Your task to perform on an android device: Empty the shopping cart on walmart.com. Image 0: 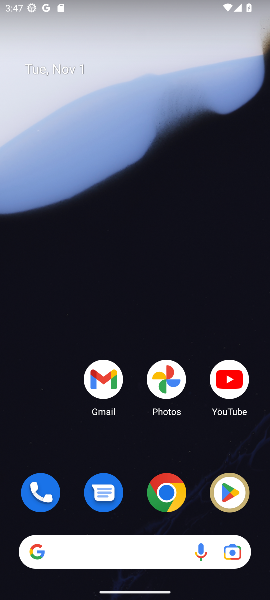
Step 0: click (165, 498)
Your task to perform on an android device: Empty the shopping cart on walmart.com. Image 1: 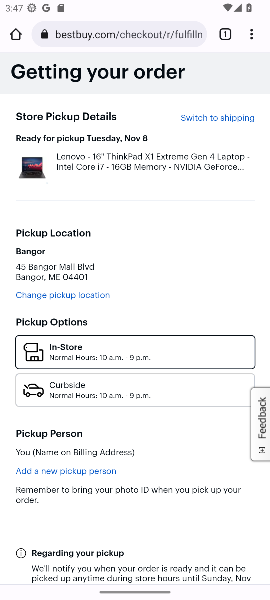
Step 1: click (140, 28)
Your task to perform on an android device: Empty the shopping cart on walmart.com. Image 2: 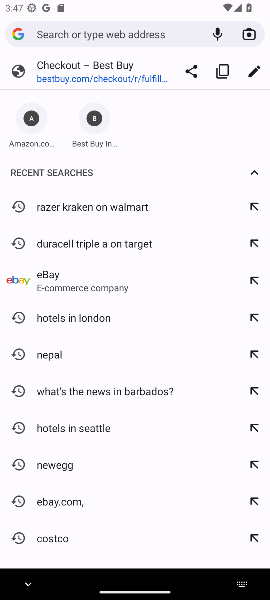
Step 2: type "walmart.com"
Your task to perform on an android device: Empty the shopping cart on walmart.com. Image 3: 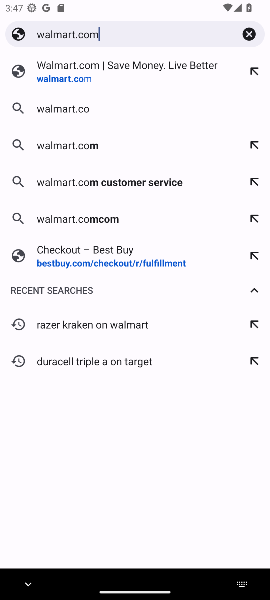
Step 3: type ""
Your task to perform on an android device: Empty the shopping cart on walmart.com. Image 4: 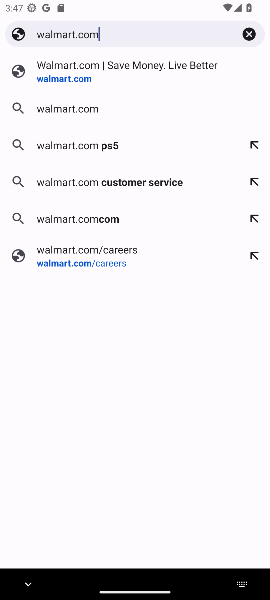
Step 4: press enter
Your task to perform on an android device: Empty the shopping cart on walmart.com. Image 5: 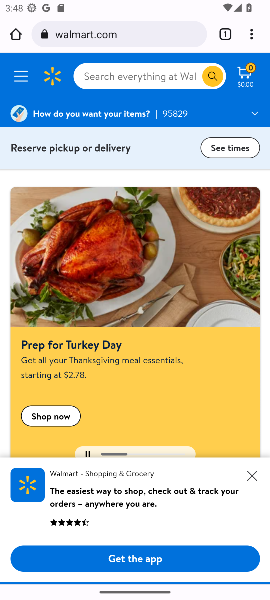
Step 5: click (239, 72)
Your task to perform on an android device: Empty the shopping cart on walmart.com. Image 6: 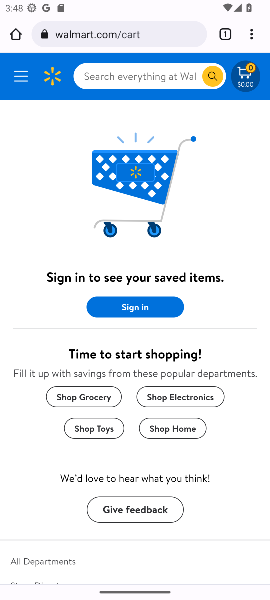
Step 6: press back button
Your task to perform on an android device: Empty the shopping cart on walmart.com. Image 7: 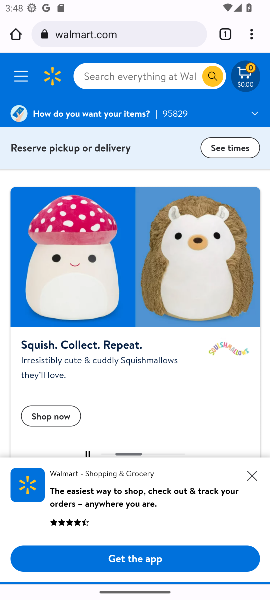
Step 7: click (257, 473)
Your task to perform on an android device: Empty the shopping cart on walmart.com. Image 8: 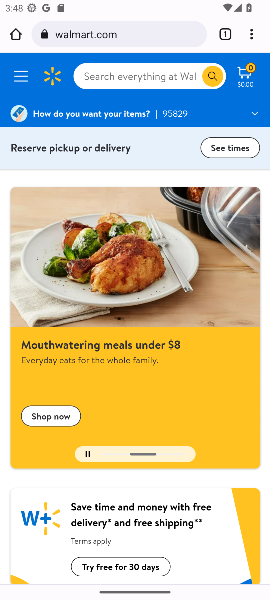
Step 8: drag from (164, 536) to (212, 258)
Your task to perform on an android device: Empty the shopping cart on walmart.com. Image 9: 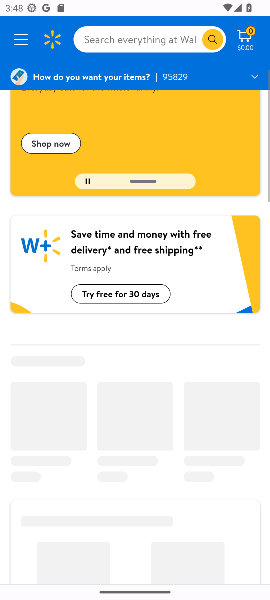
Step 9: drag from (193, 312) to (208, 218)
Your task to perform on an android device: Empty the shopping cart on walmart.com. Image 10: 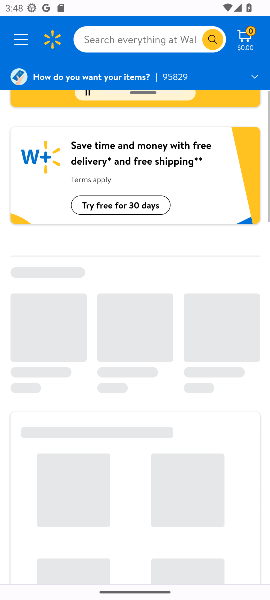
Step 10: drag from (186, 299) to (225, 181)
Your task to perform on an android device: Empty the shopping cart on walmart.com. Image 11: 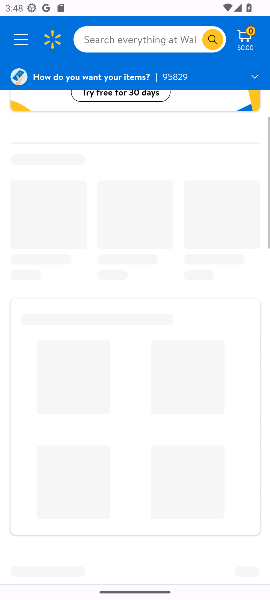
Step 11: drag from (224, 278) to (229, 224)
Your task to perform on an android device: Empty the shopping cart on walmart.com. Image 12: 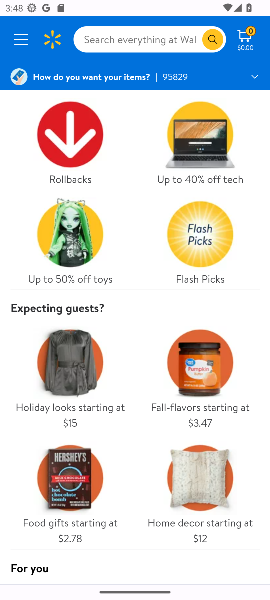
Step 12: drag from (74, 411) to (169, 181)
Your task to perform on an android device: Empty the shopping cart on walmart.com. Image 13: 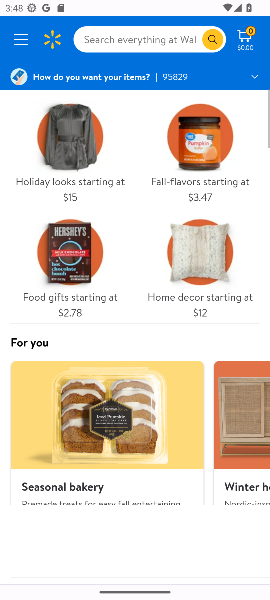
Step 13: drag from (178, 269) to (200, 188)
Your task to perform on an android device: Empty the shopping cart on walmart.com. Image 14: 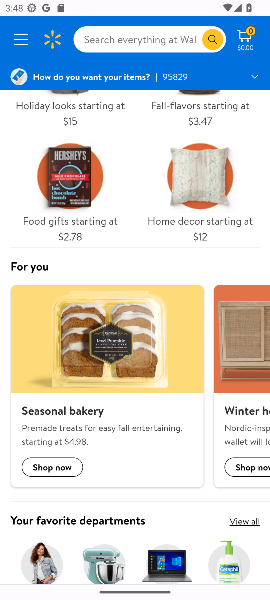
Step 14: drag from (123, 186) to (181, 143)
Your task to perform on an android device: Empty the shopping cart on walmart.com. Image 15: 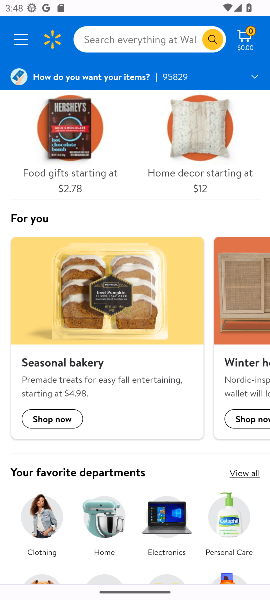
Step 15: drag from (158, 484) to (176, 239)
Your task to perform on an android device: Empty the shopping cart on walmart.com. Image 16: 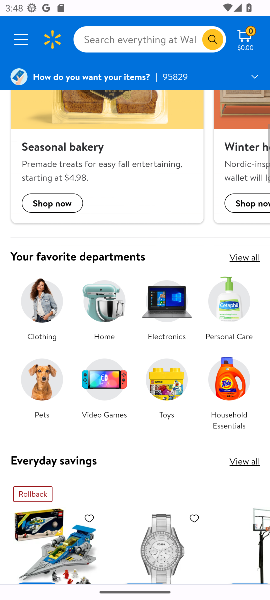
Step 16: drag from (162, 418) to (197, 291)
Your task to perform on an android device: Empty the shopping cart on walmart.com. Image 17: 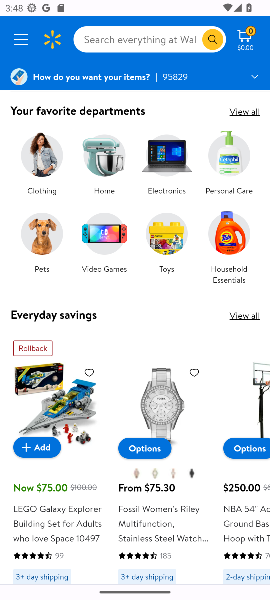
Step 17: drag from (111, 401) to (137, 167)
Your task to perform on an android device: Empty the shopping cart on walmart.com. Image 18: 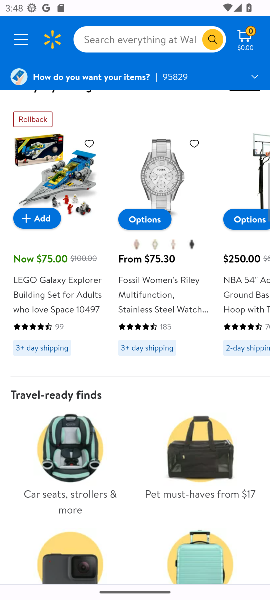
Step 18: drag from (140, 418) to (140, 223)
Your task to perform on an android device: Empty the shopping cart on walmart.com. Image 19: 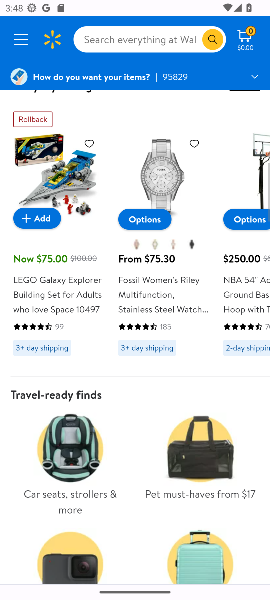
Step 19: drag from (134, 415) to (170, 221)
Your task to perform on an android device: Empty the shopping cart on walmart.com. Image 20: 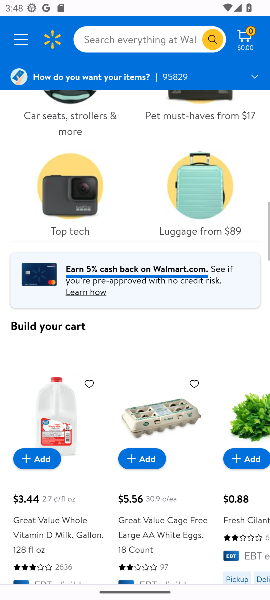
Step 20: drag from (150, 384) to (167, 237)
Your task to perform on an android device: Empty the shopping cart on walmart.com. Image 21: 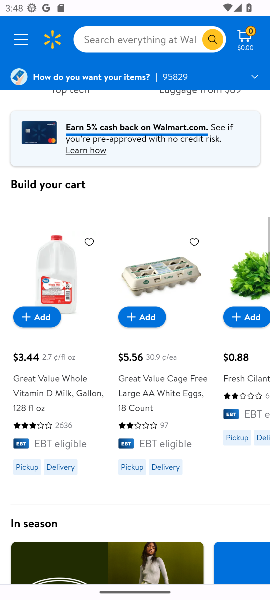
Step 21: drag from (162, 418) to (185, 236)
Your task to perform on an android device: Empty the shopping cart on walmart.com. Image 22: 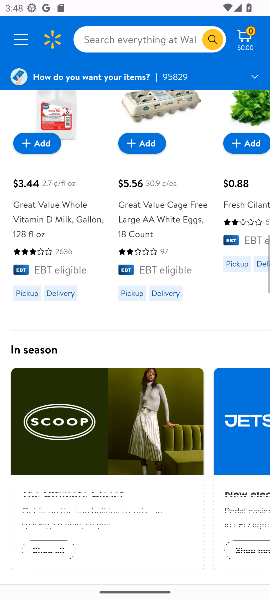
Step 22: drag from (173, 370) to (179, 224)
Your task to perform on an android device: Empty the shopping cart on walmart.com. Image 23: 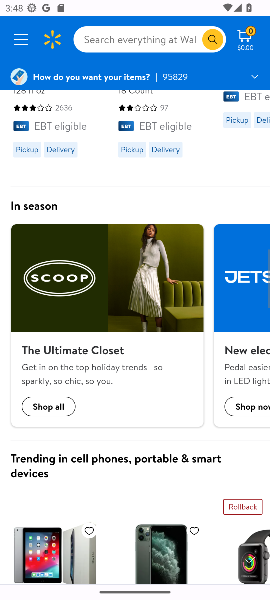
Step 23: drag from (159, 388) to (173, 197)
Your task to perform on an android device: Empty the shopping cart on walmart.com. Image 24: 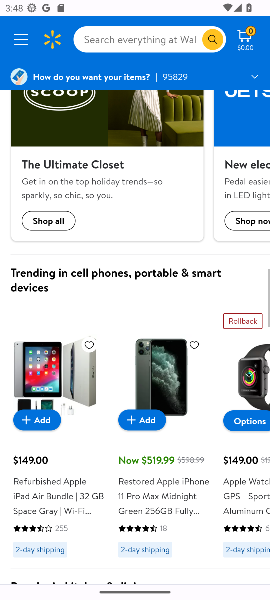
Step 24: drag from (168, 385) to (190, 182)
Your task to perform on an android device: Empty the shopping cart on walmart.com. Image 25: 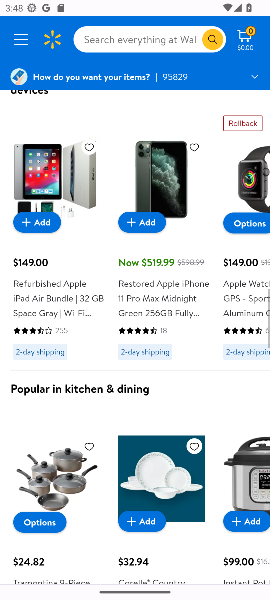
Step 25: drag from (165, 320) to (185, 172)
Your task to perform on an android device: Empty the shopping cart on walmart.com. Image 26: 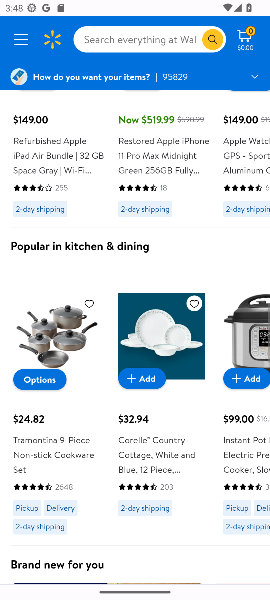
Step 26: drag from (161, 413) to (178, 172)
Your task to perform on an android device: Empty the shopping cart on walmart.com. Image 27: 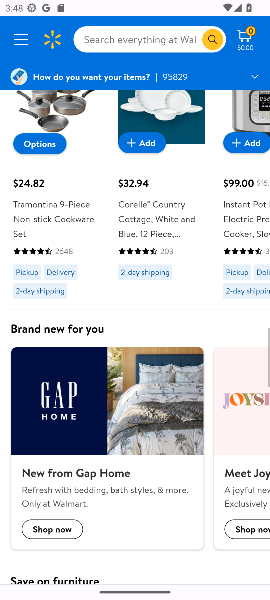
Step 27: drag from (149, 391) to (162, 194)
Your task to perform on an android device: Empty the shopping cart on walmart.com. Image 28: 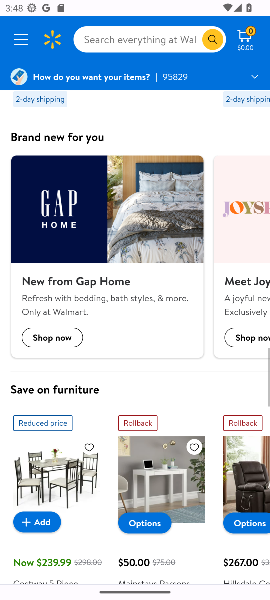
Step 28: drag from (149, 342) to (160, 198)
Your task to perform on an android device: Empty the shopping cart on walmart.com. Image 29: 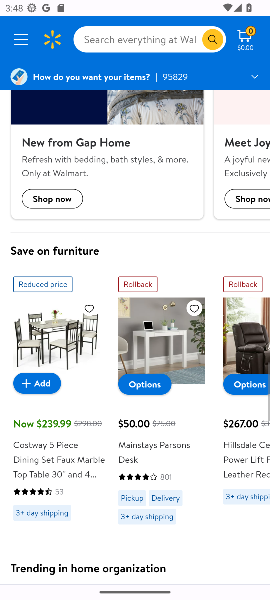
Step 29: drag from (173, 369) to (183, 191)
Your task to perform on an android device: Empty the shopping cart on walmart.com. Image 30: 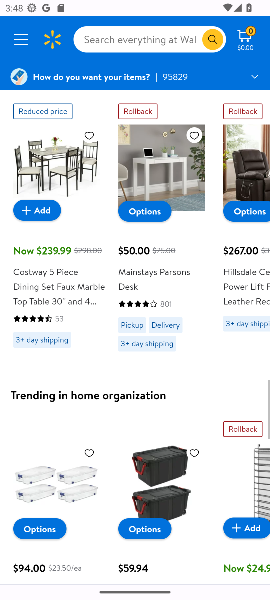
Step 30: drag from (155, 368) to (158, 224)
Your task to perform on an android device: Empty the shopping cart on walmart.com. Image 31: 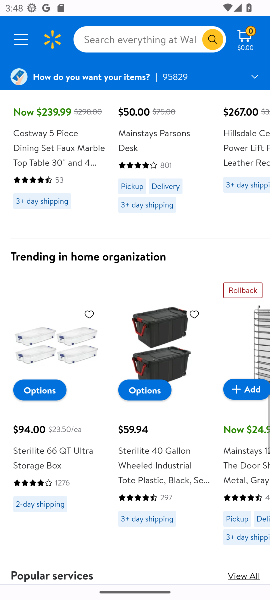
Step 31: drag from (146, 395) to (162, 197)
Your task to perform on an android device: Empty the shopping cart on walmart.com. Image 32: 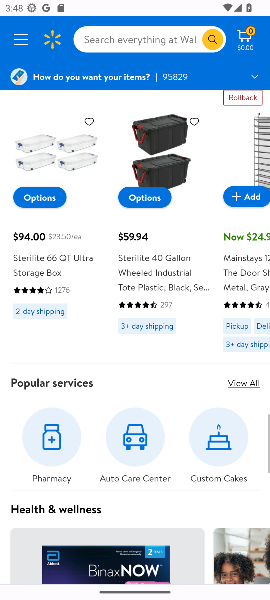
Step 32: drag from (175, 376) to (173, 202)
Your task to perform on an android device: Empty the shopping cart on walmart.com. Image 33: 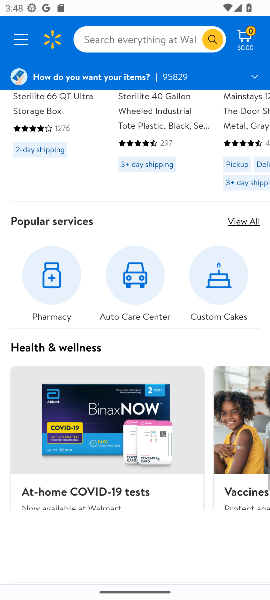
Step 33: drag from (166, 427) to (188, 236)
Your task to perform on an android device: Empty the shopping cart on walmart.com. Image 34: 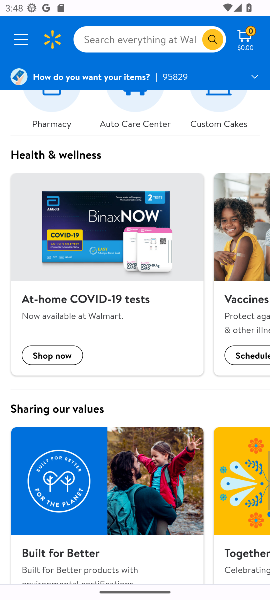
Step 34: drag from (172, 421) to (193, 241)
Your task to perform on an android device: Empty the shopping cart on walmart.com. Image 35: 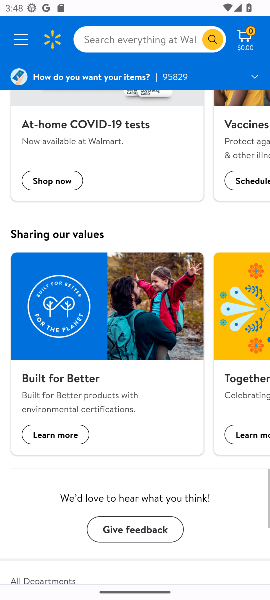
Step 35: drag from (165, 396) to (168, 202)
Your task to perform on an android device: Empty the shopping cart on walmart.com. Image 36: 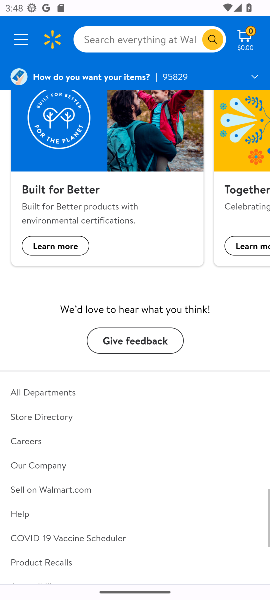
Step 36: drag from (151, 254) to (153, 212)
Your task to perform on an android device: Empty the shopping cart on walmart.com. Image 37: 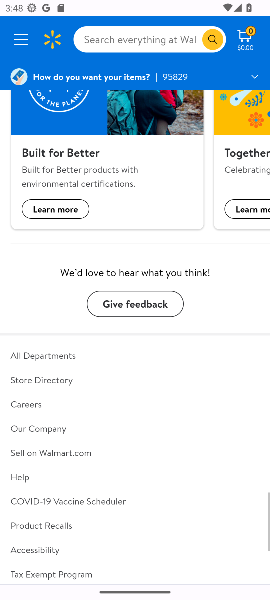
Step 37: click (165, 254)
Your task to perform on an android device: Empty the shopping cart on walmart.com. Image 38: 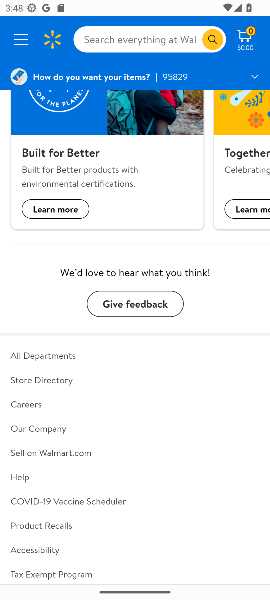
Step 38: press back button
Your task to perform on an android device: Empty the shopping cart on walmart.com. Image 39: 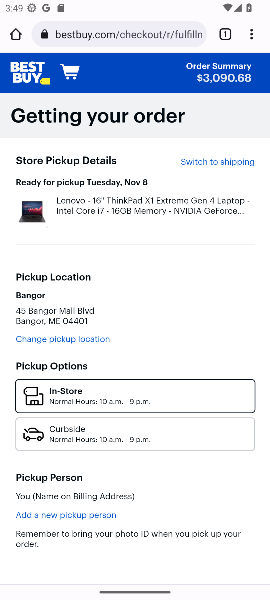
Step 39: drag from (180, 265) to (194, 166)
Your task to perform on an android device: Empty the shopping cart on walmart.com. Image 40: 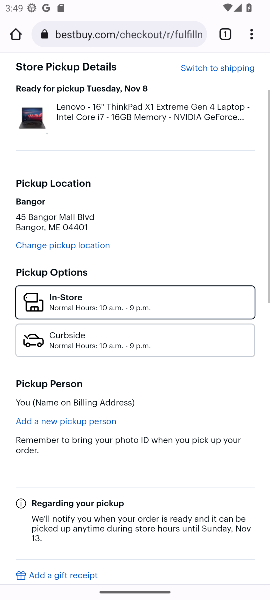
Step 40: drag from (172, 332) to (175, 551)
Your task to perform on an android device: Empty the shopping cart on walmart.com. Image 41: 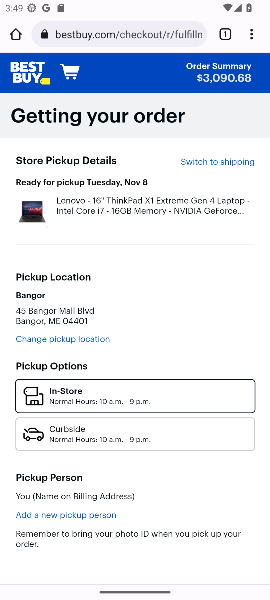
Step 41: click (61, 75)
Your task to perform on an android device: Empty the shopping cart on walmart.com. Image 42: 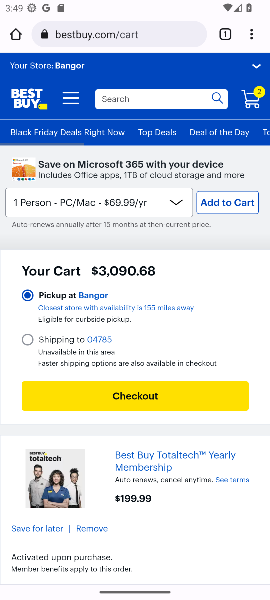
Step 42: click (113, 25)
Your task to perform on an android device: Empty the shopping cart on walmart.com. Image 43: 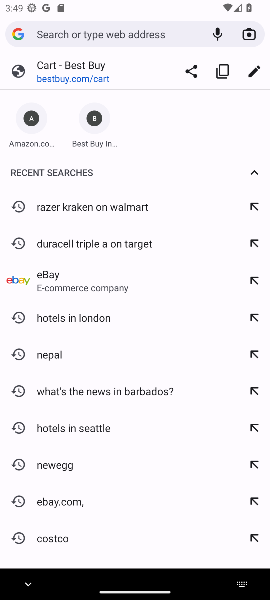
Step 43: type "walmart.com"
Your task to perform on an android device: Empty the shopping cart on walmart.com. Image 44: 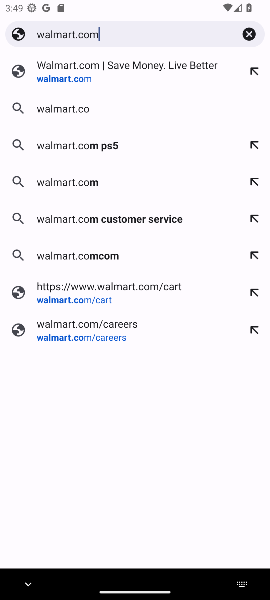
Step 44: type ""
Your task to perform on an android device: Empty the shopping cart on walmart.com. Image 45: 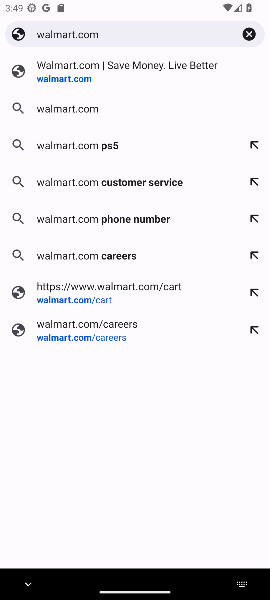
Step 45: click (134, 75)
Your task to perform on an android device: Empty the shopping cart on walmart.com. Image 46: 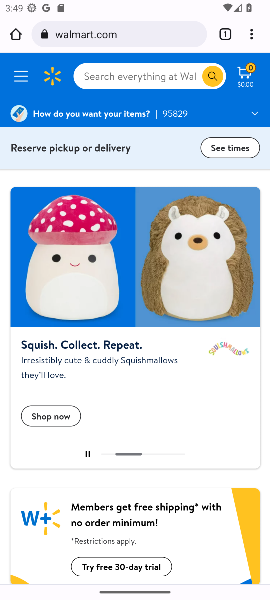
Step 46: click (243, 78)
Your task to perform on an android device: Empty the shopping cart on walmart.com. Image 47: 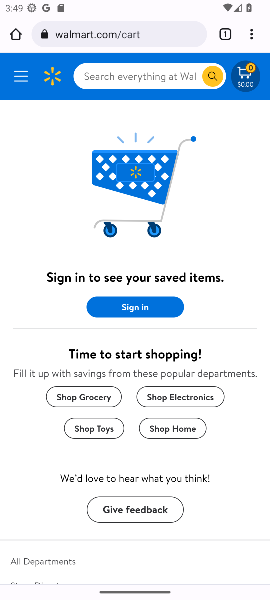
Step 47: task complete